Your task to perform on an android device: Open Google Chrome and click the shortcut for Amazon.com Image 0: 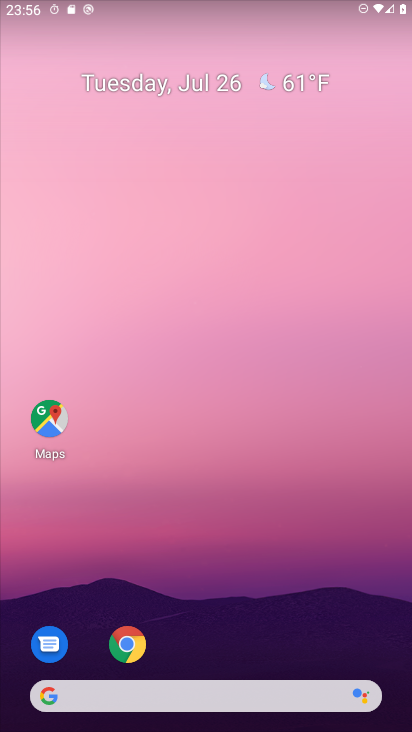
Step 0: click (118, 650)
Your task to perform on an android device: Open Google Chrome and click the shortcut for Amazon.com Image 1: 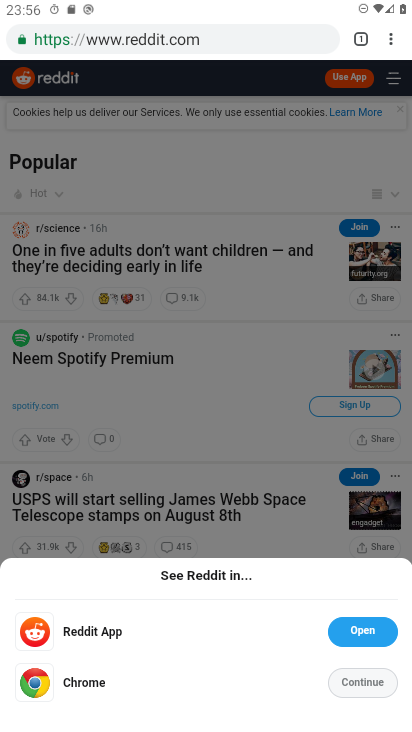
Step 1: click (394, 41)
Your task to perform on an android device: Open Google Chrome and click the shortcut for Amazon.com Image 2: 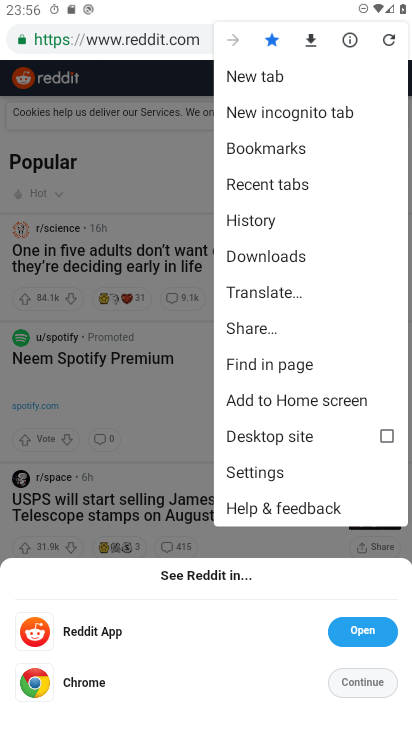
Step 2: click (295, 75)
Your task to perform on an android device: Open Google Chrome and click the shortcut for Amazon.com Image 3: 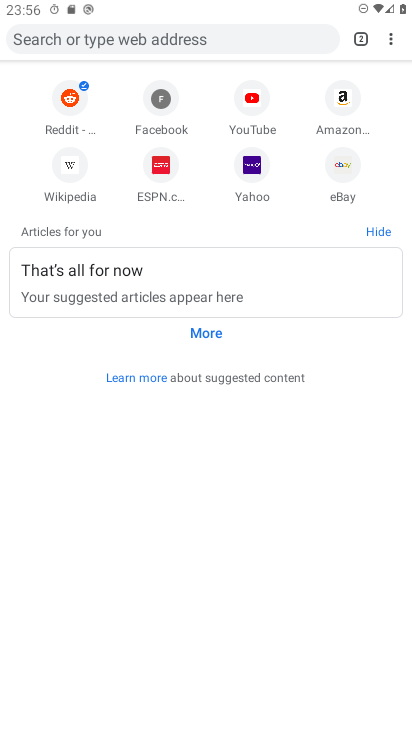
Step 3: click (335, 101)
Your task to perform on an android device: Open Google Chrome and click the shortcut for Amazon.com Image 4: 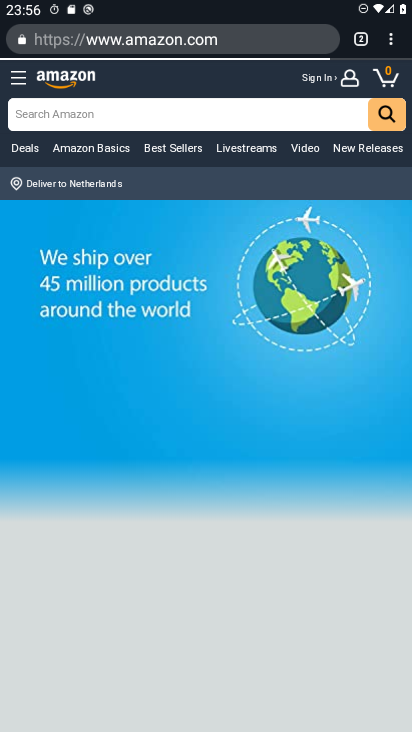
Step 4: task complete